Your task to perform on an android device: toggle priority inbox in the gmail app Image 0: 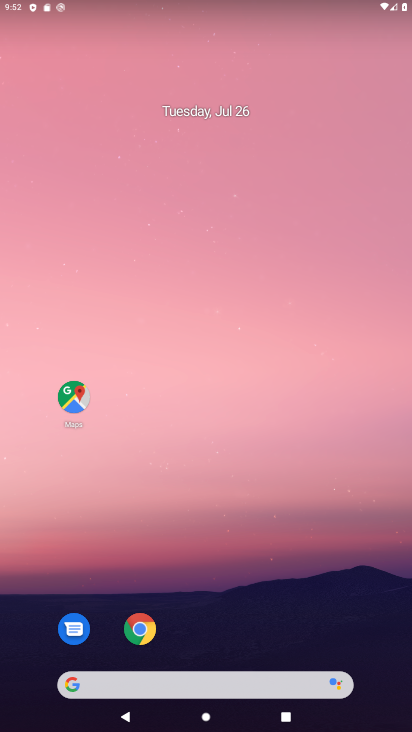
Step 0: drag from (269, 653) to (276, 206)
Your task to perform on an android device: toggle priority inbox in the gmail app Image 1: 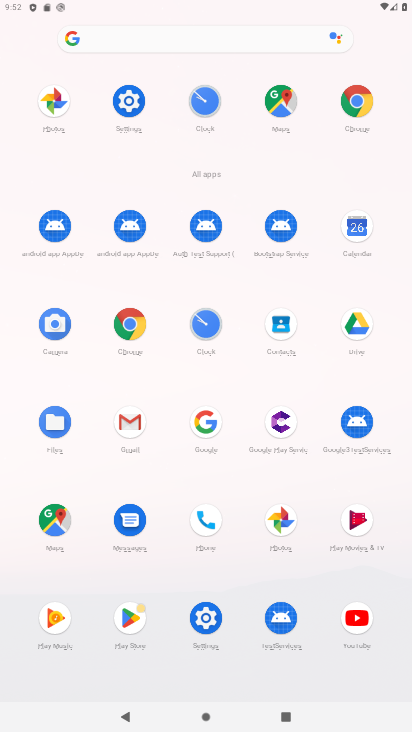
Step 1: click (128, 424)
Your task to perform on an android device: toggle priority inbox in the gmail app Image 2: 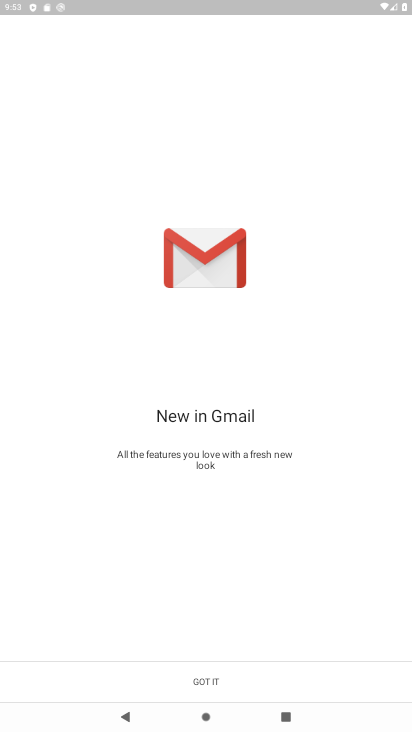
Step 2: click (200, 668)
Your task to perform on an android device: toggle priority inbox in the gmail app Image 3: 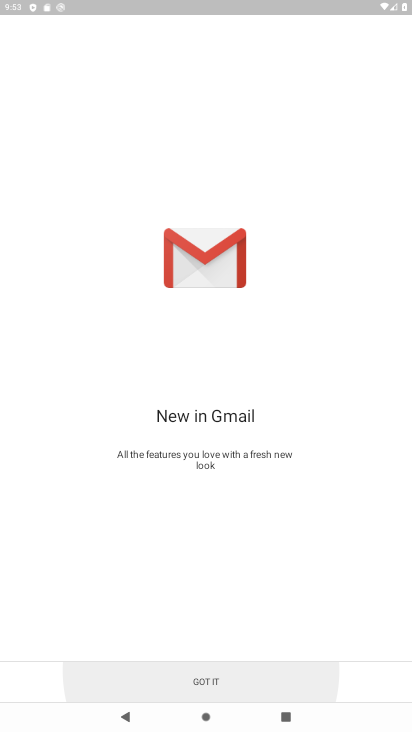
Step 3: click (200, 668)
Your task to perform on an android device: toggle priority inbox in the gmail app Image 4: 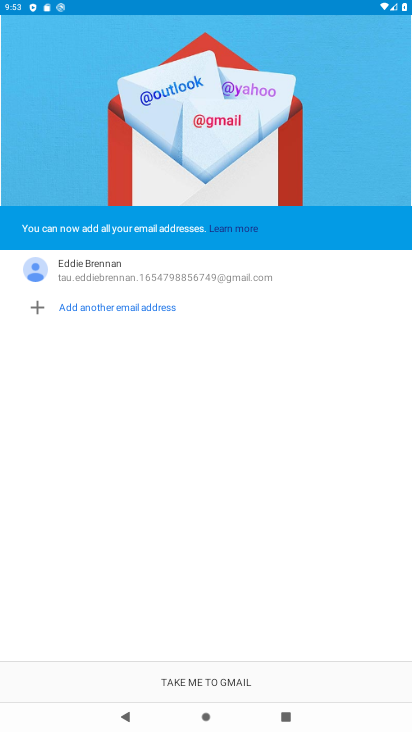
Step 4: click (200, 668)
Your task to perform on an android device: toggle priority inbox in the gmail app Image 5: 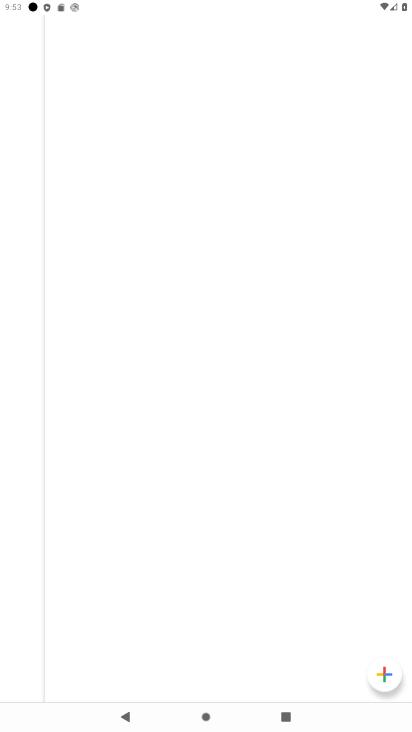
Step 5: task complete